Your task to perform on an android device: turn off notifications settings in the gmail app Image 0: 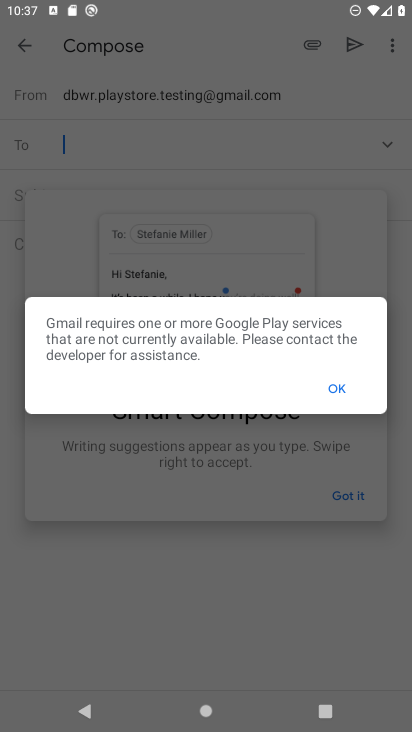
Step 0: press home button
Your task to perform on an android device: turn off notifications settings in the gmail app Image 1: 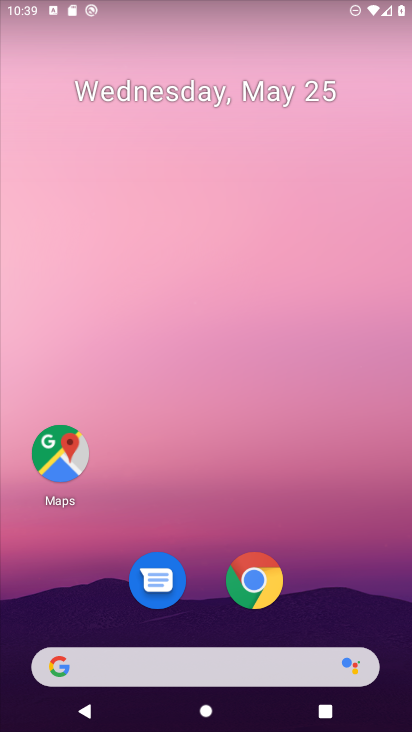
Step 1: drag from (29, 578) to (251, 121)
Your task to perform on an android device: turn off notifications settings in the gmail app Image 2: 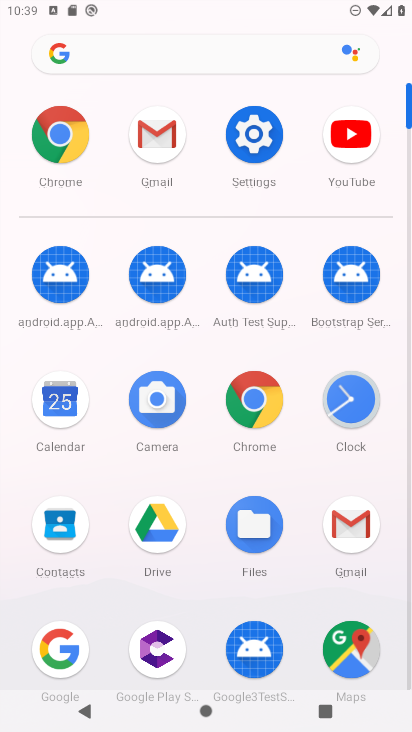
Step 2: click (235, 136)
Your task to perform on an android device: turn off notifications settings in the gmail app Image 3: 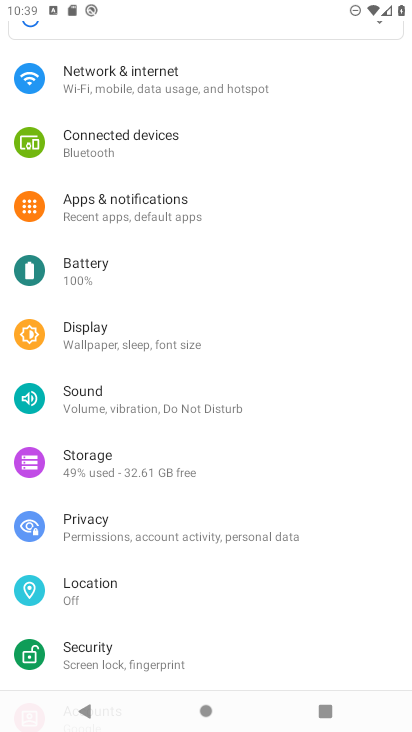
Step 3: click (122, 221)
Your task to perform on an android device: turn off notifications settings in the gmail app Image 4: 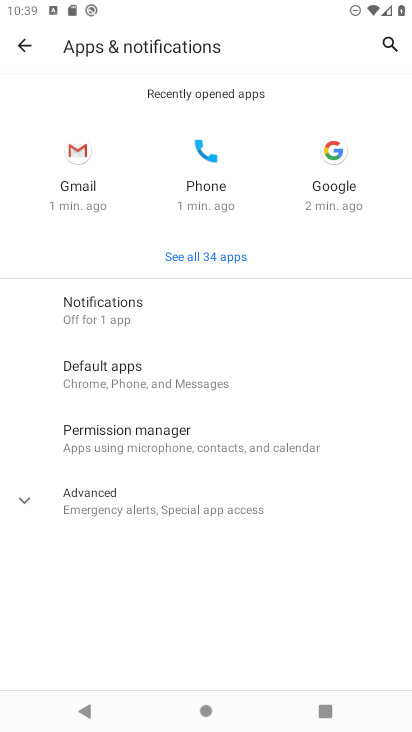
Step 4: click (99, 304)
Your task to perform on an android device: turn off notifications settings in the gmail app Image 5: 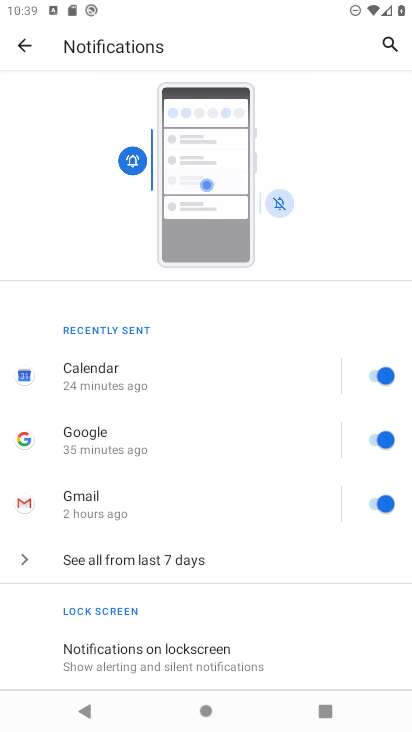
Step 5: press back button
Your task to perform on an android device: turn off notifications settings in the gmail app Image 6: 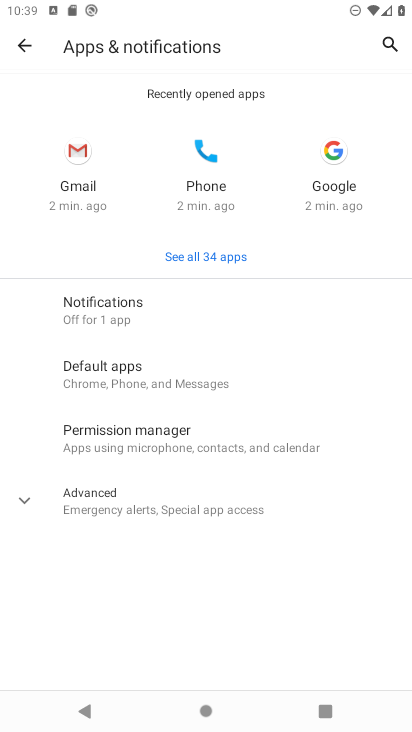
Step 6: click (65, 157)
Your task to perform on an android device: turn off notifications settings in the gmail app Image 7: 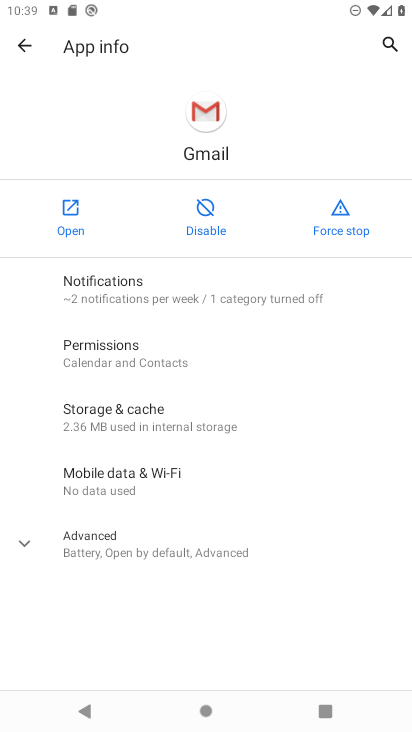
Step 7: click (97, 297)
Your task to perform on an android device: turn off notifications settings in the gmail app Image 8: 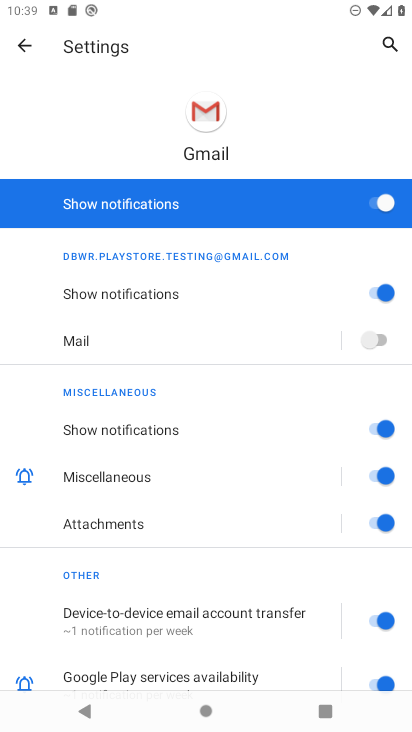
Step 8: click (385, 201)
Your task to perform on an android device: turn off notifications settings in the gmail app Image 9: 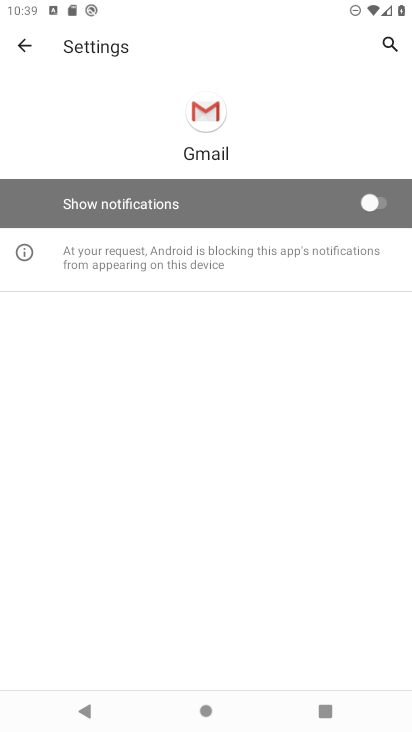
Step 9: task complete